Your task to perform on an android device: turn smart compose on in the gmail app Image 0: 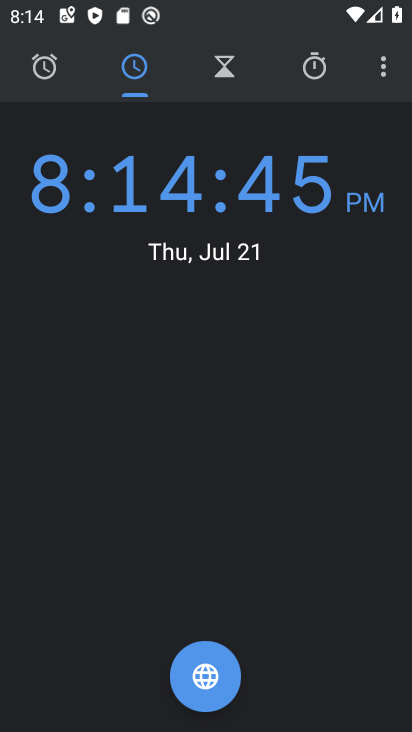
Step 0: press home button
Your task to perform on an android device: turn smart compose on in the gmail app Image 1: 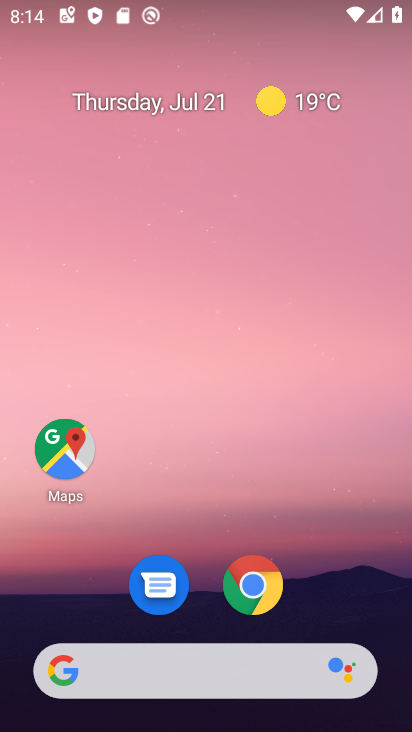
Step 1: click (264, 578)
Your task to perform on an android device: turn smart compose on in the gmail app Image 2: 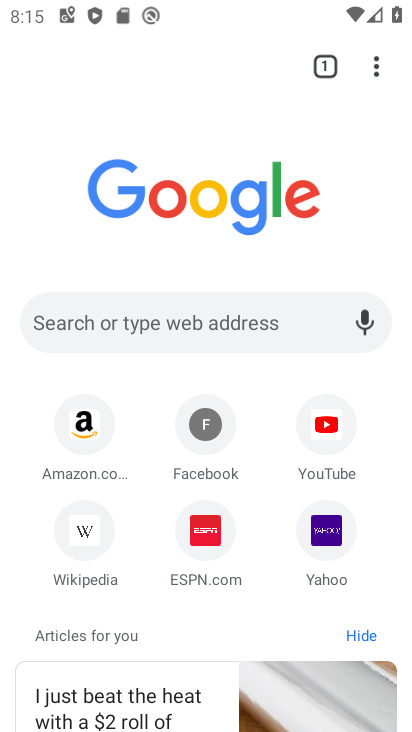
Step 2: press home button
Your task to perform on an android device: turn smart compose on in the gmail app Image 3: 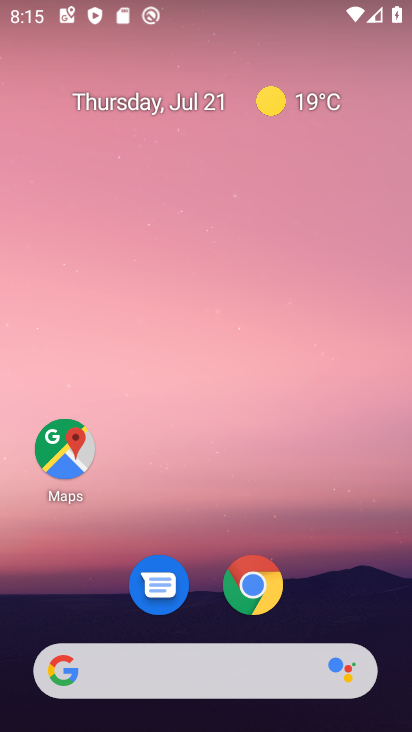
Step 3: drag from (313, 607) to (310, 63)
Your task to perform on an android device: turn smart compose on in the gmail app Image 4: 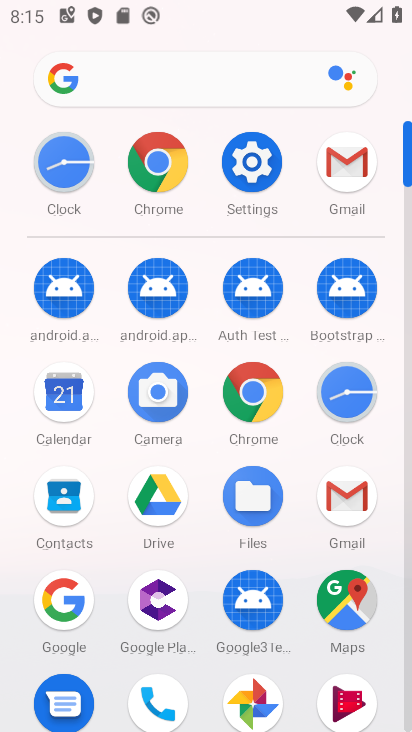
Step 4: click (345, 156)
Your task to perform on an android device: turn smart compose on in the gmail app Image 5: 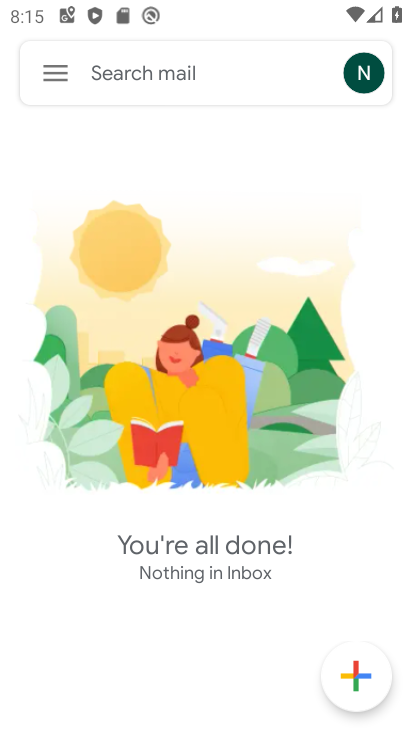
Step 5: click (54, 73)
Your task to perform on an android device: turn smart compose on in the gmail app Image 6: 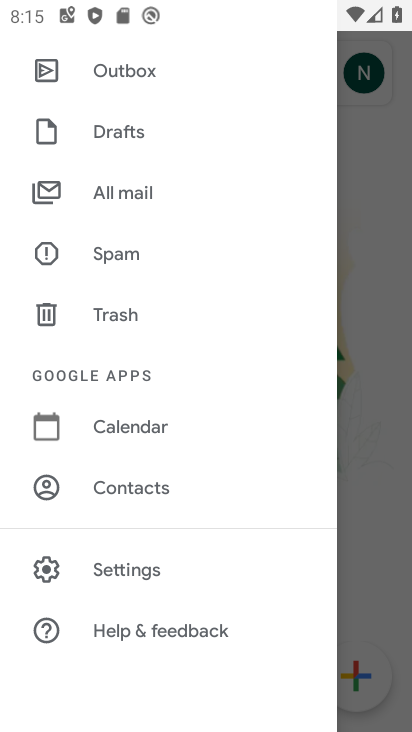
Step 6: click (143, 564)
Your task to perform on an android device: turn smart compose on in the gmail app Image 7: 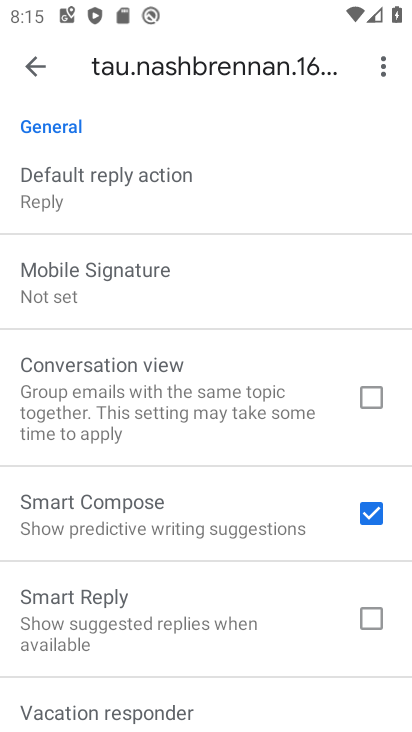
Step 7: task complete